Your task to perform on an android device: turn off smart reply in the gmail app Image 0: 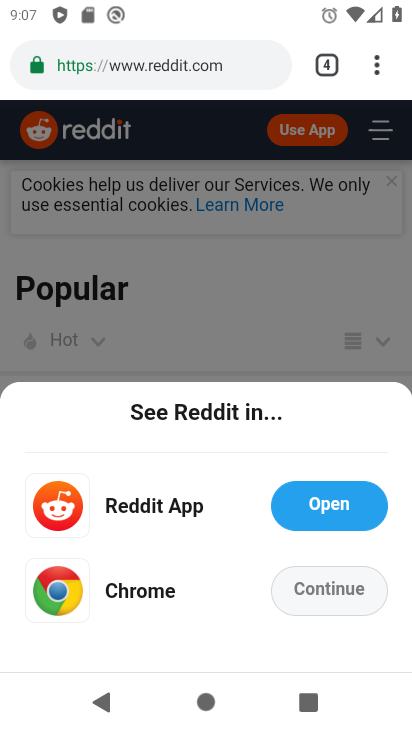
Step 0: press home button
Your task to perform on an android device: turn off smart reply in the gmail app Image 1: 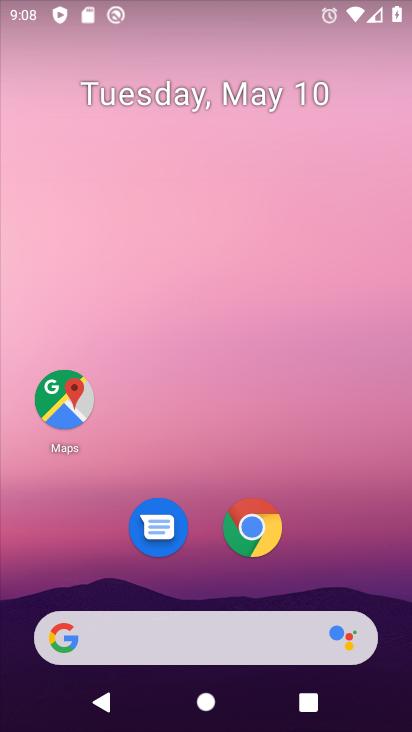
Step 1: drag from (242, 590) to (242, 131)
Your task to perform on an android device: turn off smart reply in the gmail app Image 2: 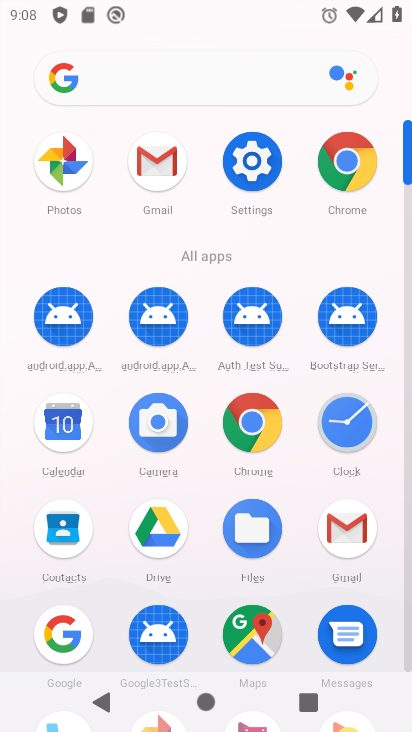
Step 2: click (335, 538)
Your task to perform on an android device: turn off smart reply in the gmail app Image 3: 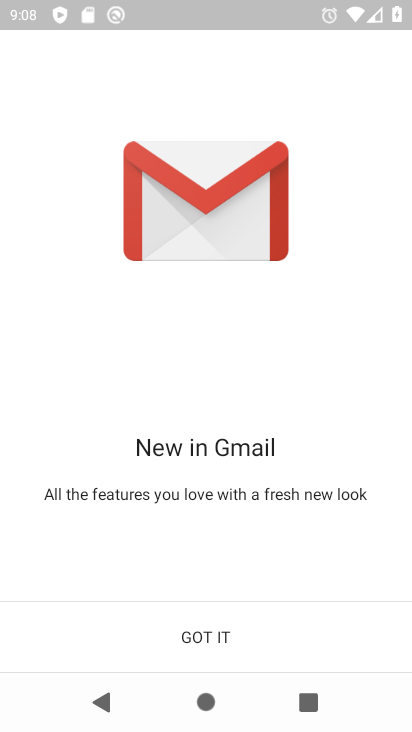
Step 3: click (209, 623)
Your task to perform on an android device: turn off smart reply in the gmail app Image 4: 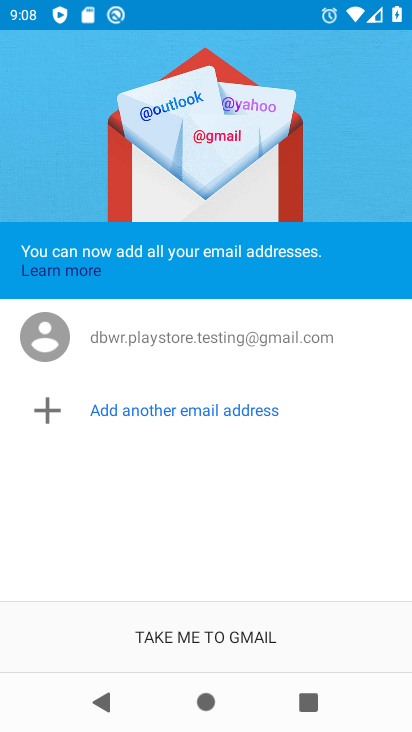
Step 4: click (228, 638)
Your task to perform on an android device: turn off smart reply in the gmail app Image 5: 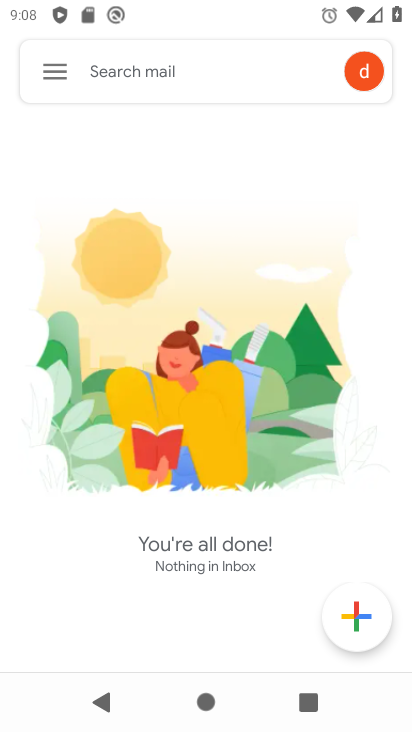
Step 5: click (60, 71)
Your task to perform on an android device: turn off smart reply in the gmail app Image 6: 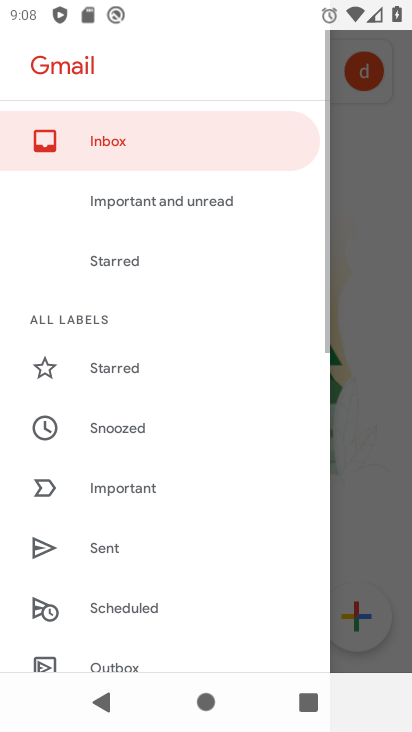
Step 6: drag from (181, 492) to (175, 34)
Your task to perform on an android device: turn off smart reply in the gmail app Image 7: 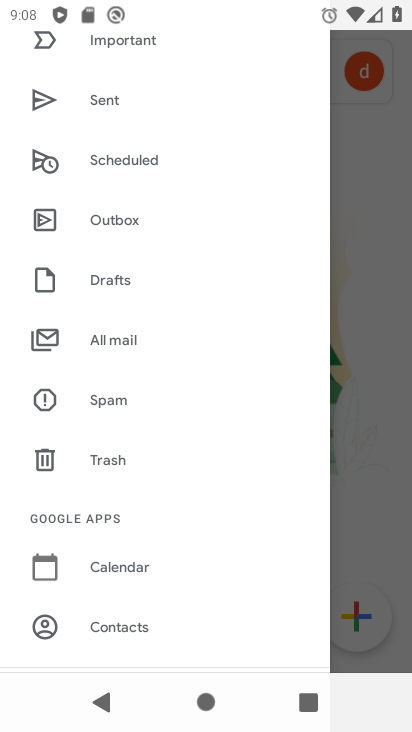
Step 7: drag from (146, 589) to (138, 188)
Your task to perform on an android device: turn off smart reply in the gmail app Image 8: 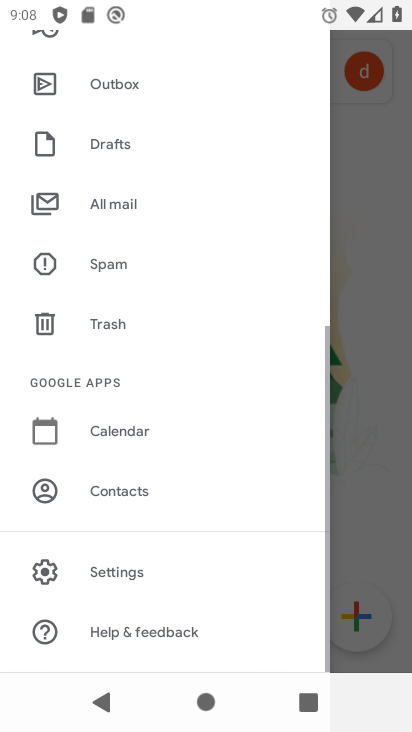
Step 8: click (95, 584)
Your task to perform on an android device: turn off smart reply in the gmail app Image 9: 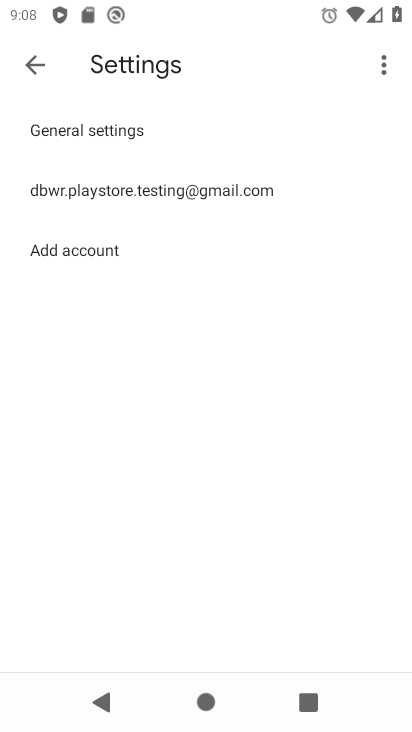
Step 9: click (124, 525)
Your task to perform on an android device: turn off smart reply in the gmail app Image 10: 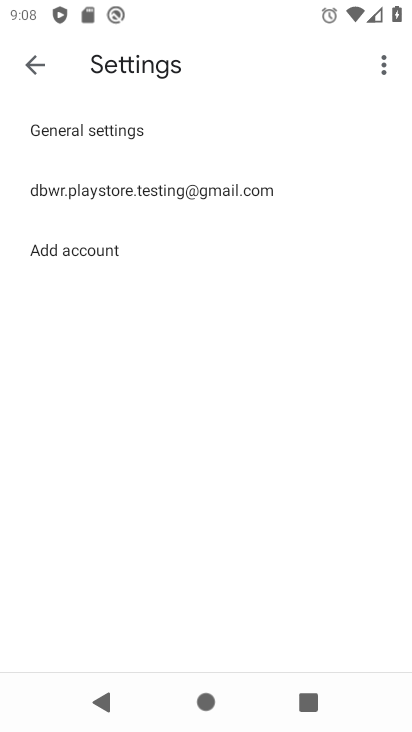
Step 10: click (102, 183)
Your task to perform on an android device: turn off smart reply in the gmail app Image 11: 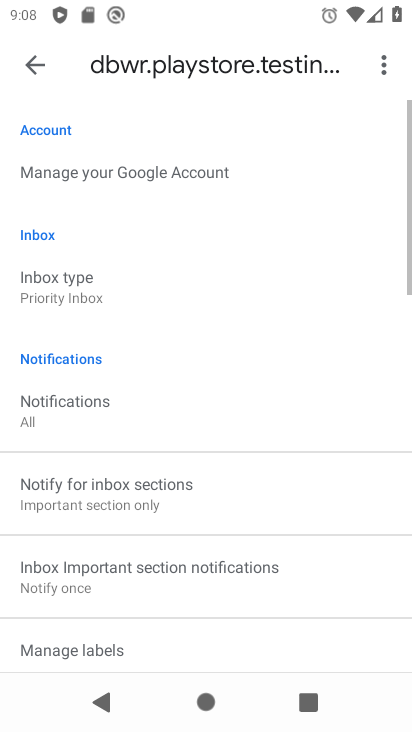
Step 11: drag from (144, 462) to (145, 103)
Your task to perform on an android device: turn off smart reply in the gmail app Image 12: 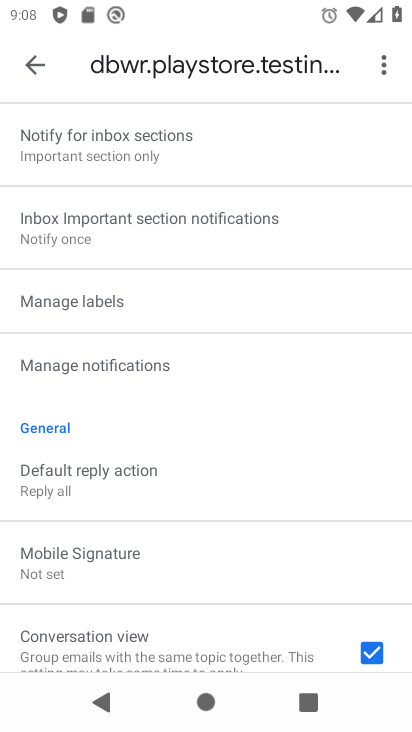
Step 12: drag from (241, 586) to (217, 284)
Your task to perform on an android device: turn off smart reply in the gmail app Image 13: 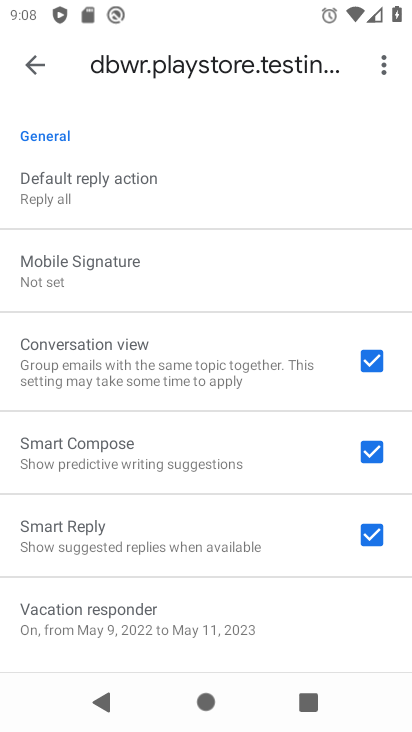
Step 13: click (377, 538)
Your task to perform on an android device: turn off smart reply in the gmail app Image 14: 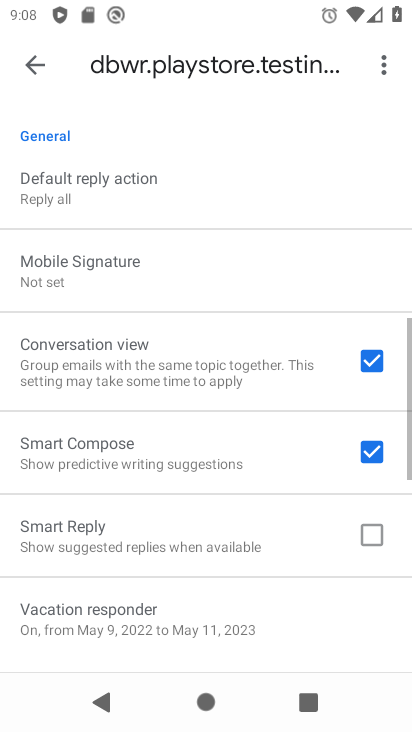
Step 14: task complete